Your task to perform on an android device: add a label to a message in the gmail app Image 0: 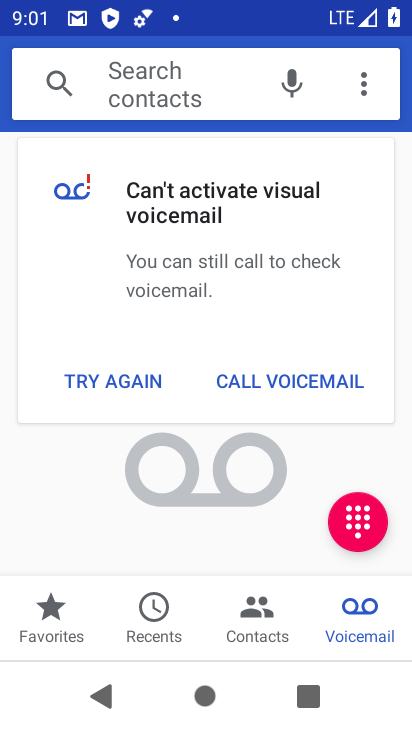
Step 0: press back button
Your task to perform on an android device: add a label to a message in the gmail app Image 1: 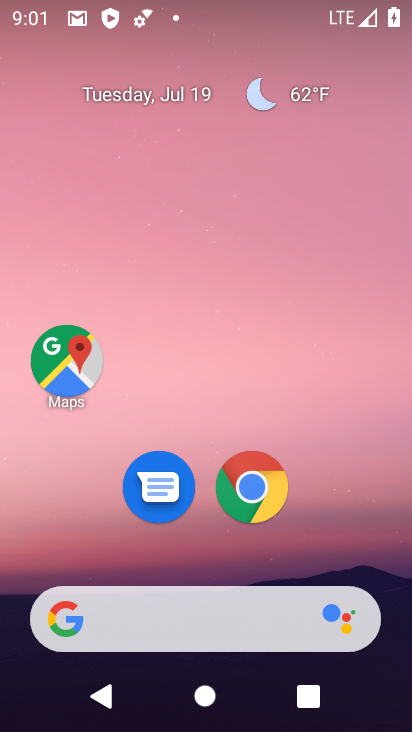
Step 1: drag from (179, 591) to (229, 35)
Your task to perform on an android device: add a label to a message in the gmail app Image 2: 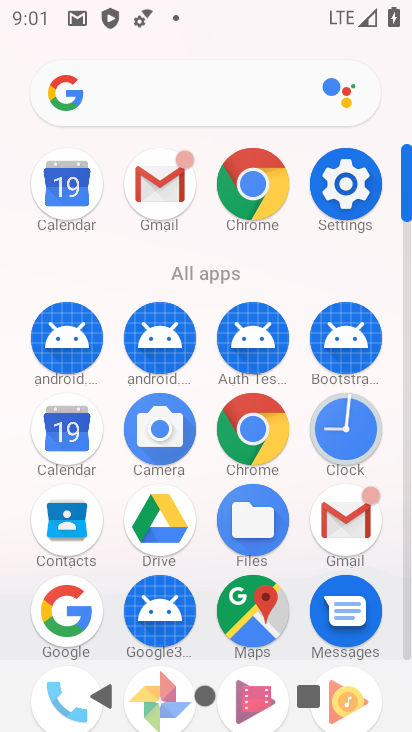
Step 2: click (176, 173)
Your task to perform on an android device: add a label to a message in the gmail app Image 3: 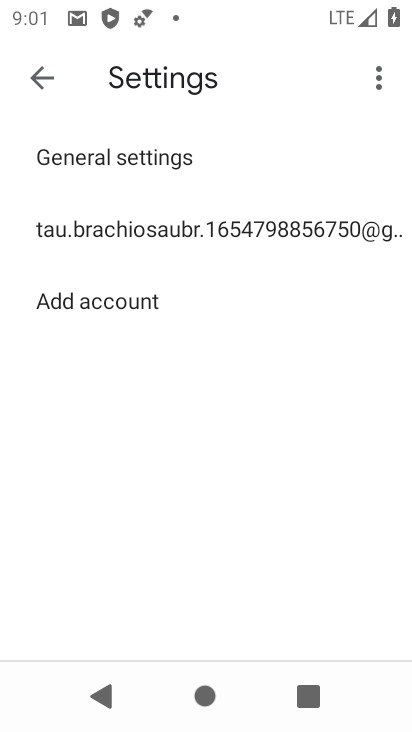
Step 3: click (26, 82)
Your task to perform on an android device: add a label to a message in the gmail app Image 4: 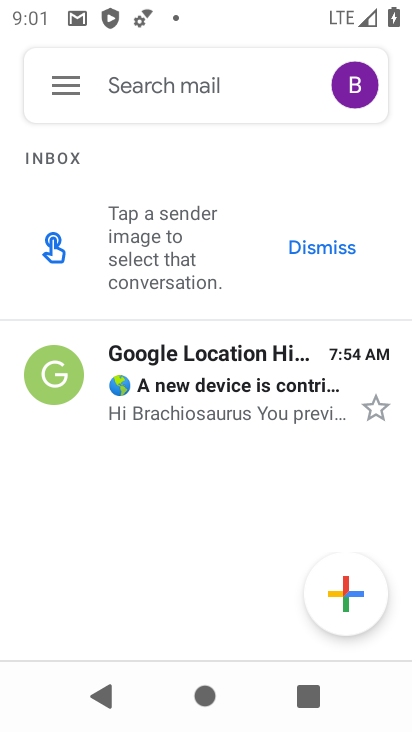
Step 4: click (175, 378)
Your task to perform on an android device: add a label to a message in the gmail app Image 5: 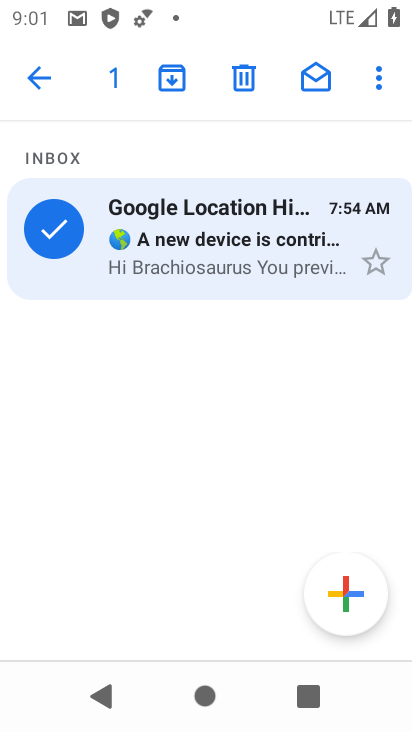
Step 5: click (382, 85)
Your task to perform on an android device: add a label to a message in the gmail app Image 6: 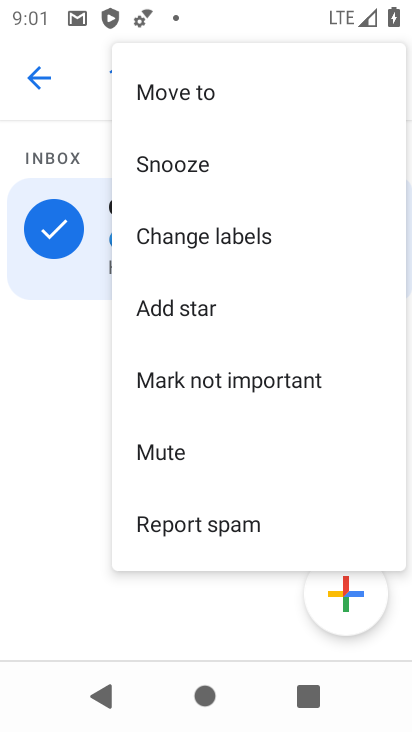
Step 6: click (251, 235)
Your task to perform on an android device: add a label to a message in the gmail app Image 7: 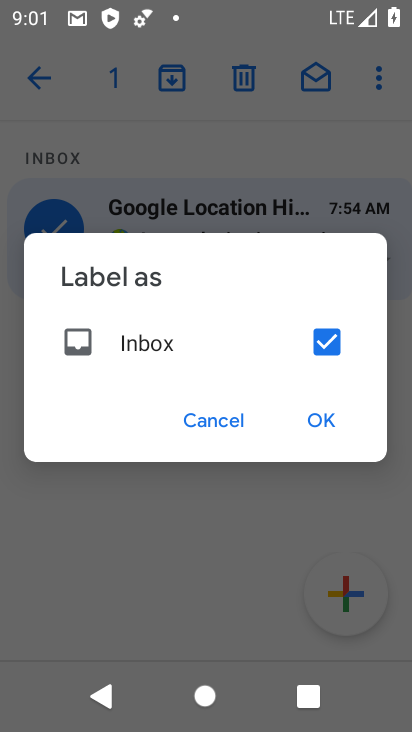
Step 7: click (333, 412)
Your task to perform on an android device: add a label to a message in the gmail app Image 8: 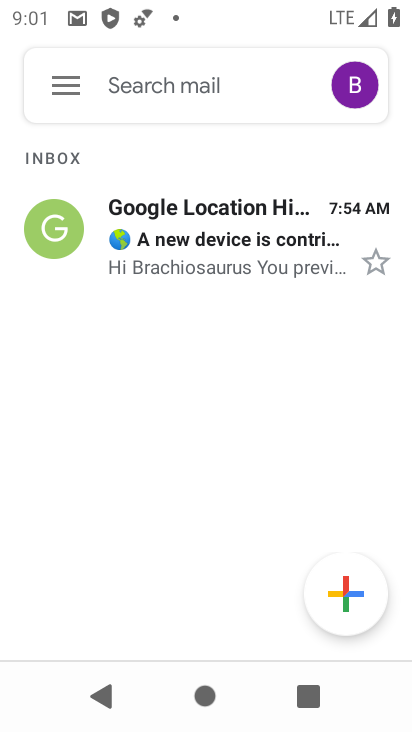
Step 8: task complete